Your task to perform on an android device: set the stopwatch Image 0: 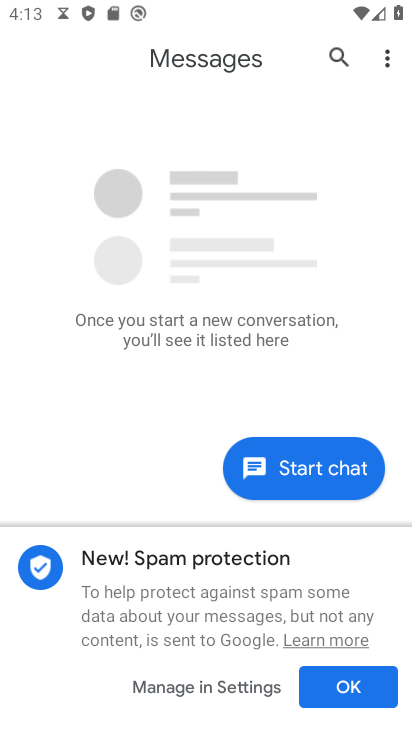
Step 0: press home button
Your task to perform on an android device: set the stopwatch Image 1: 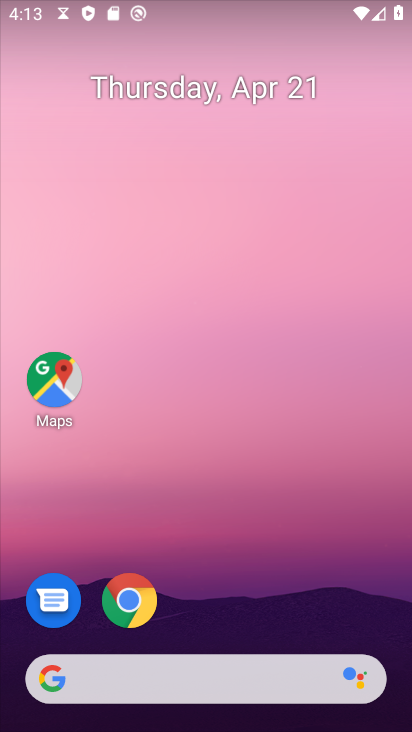
Step 1: drag from (217, 618) to (230, 168)
Your task to perform on an android device: set the stopwatch Image 2: 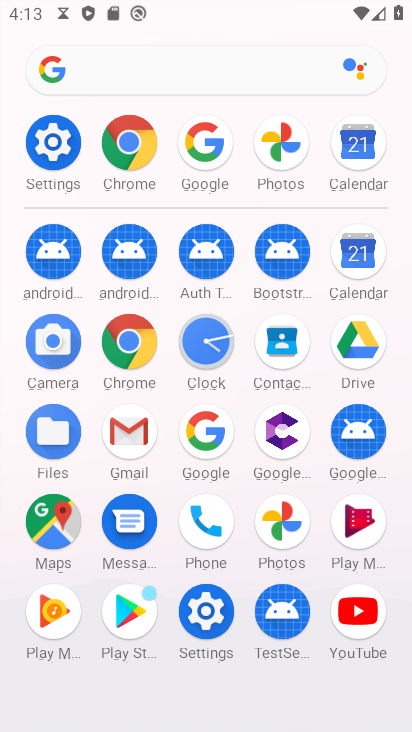
Step 2: click (206, 340)
Your task to perform on an android device: set the stopwatch Image 3: 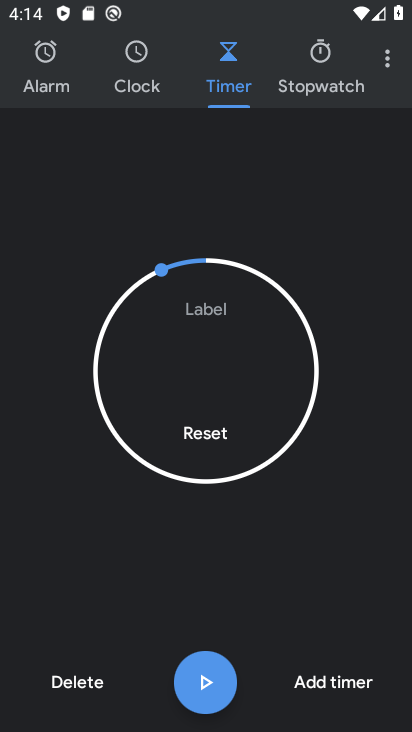
Step 3: click (321, 58)
Your task to perform on an android device: set the stopwatch Image 4: 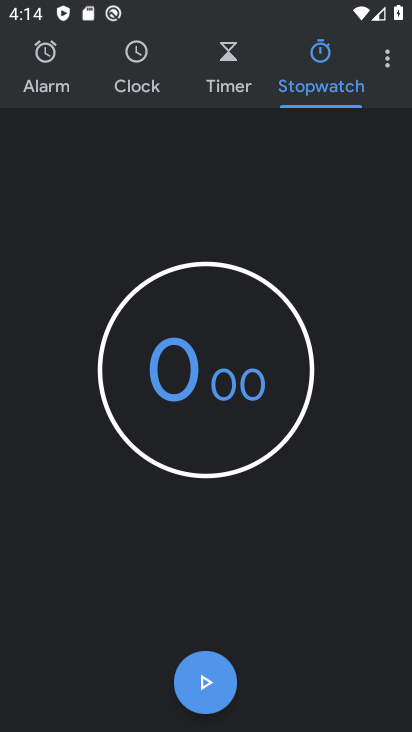
Step 4: click (229, 449)
Your task to perform on an android device: set the stopwatch Image 5: 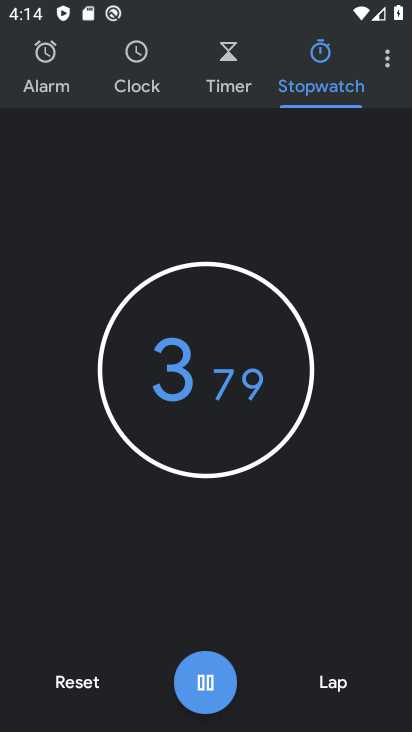
Step 5: click (197, 681)
Your task to perform on an android device: set the stopwatch Image 6: 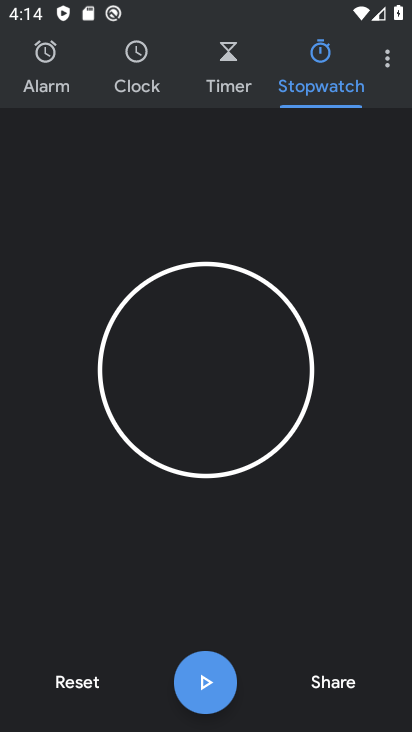
Step 6: task complete